Your task to perform on an android device: turn off sleep mode Image 0: 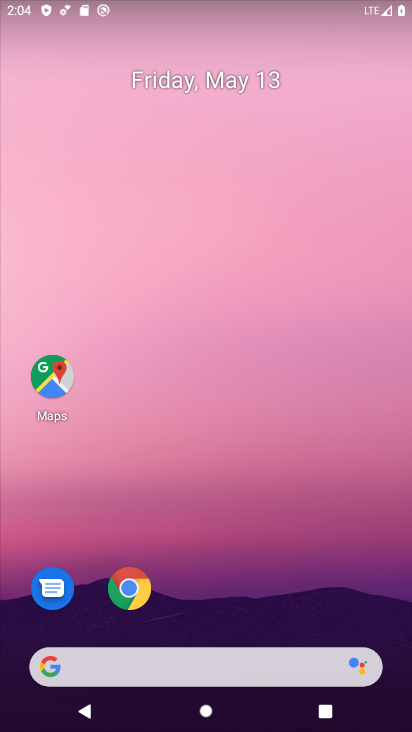
Step 0: drag from (394, 649) to (298, 7)
Your task to perform on an android device: turn off sleep mode Image 1: 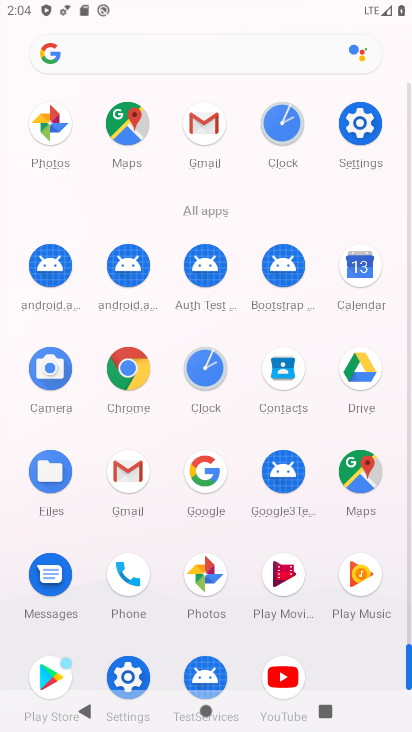
Step 1: click (128, 674)
Your task to perform on an android device: turn off sleep mode Image 2: 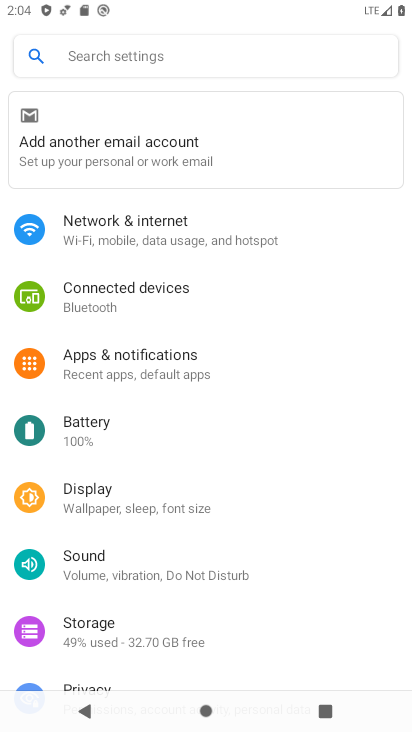
Step 2: click (105, 500)
Your task to perform on an android device: turn off sleep mode Image 3: 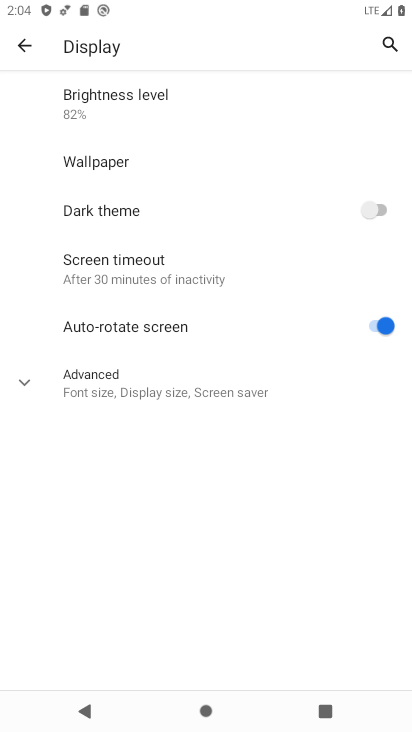
Step 3: click (30, 377)
Your task to perform on an android device: turn off sleep mode Image 4: 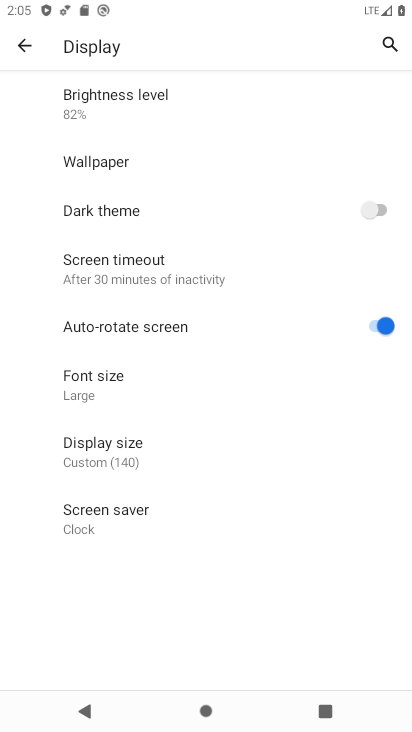
Step 4: task complete